Your task to perform on an android device: toggle improve location accuracy Image 0: 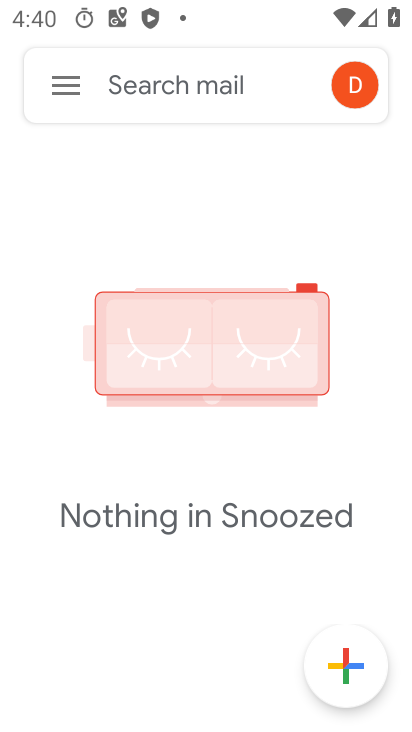
Step 0: press home button
Your task to perform on an android device: toggle improve location accuracy Image 1: 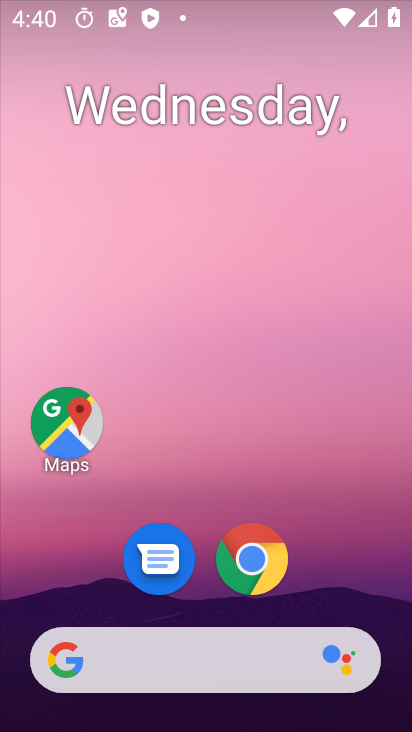
Step 1: drag from (336, 569) to (235, 58)
Your task to perform on an android device: toggle improve location accuracy Image 2: 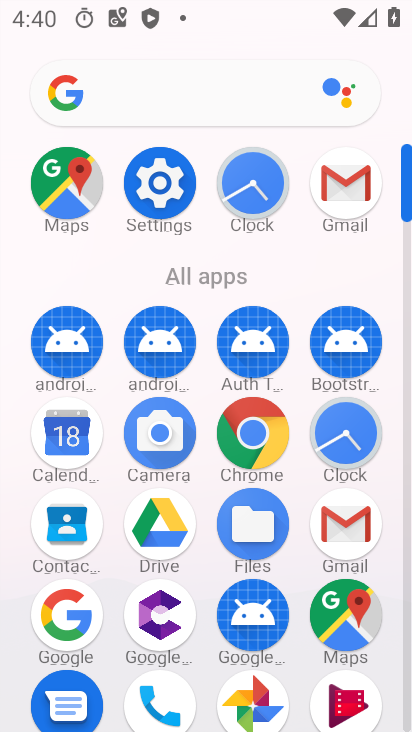
Step 2: click (175, 200)
Your task to perform on an android device: toggle improve location accuracy Image 3: 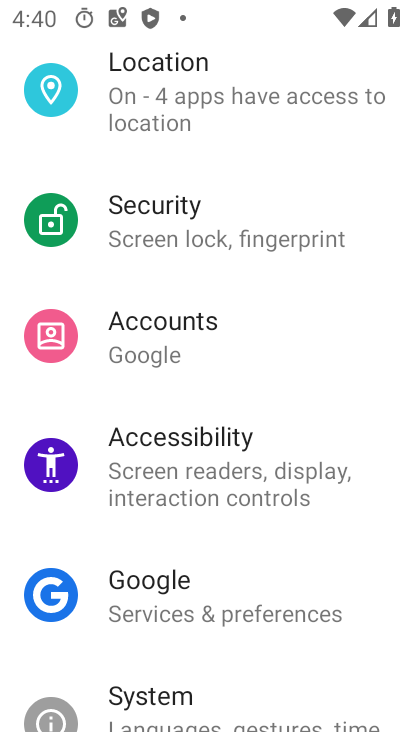
Step 3: click (182, 103)
Your task to perform on an android device: toggle improve location accuracy Image 4: 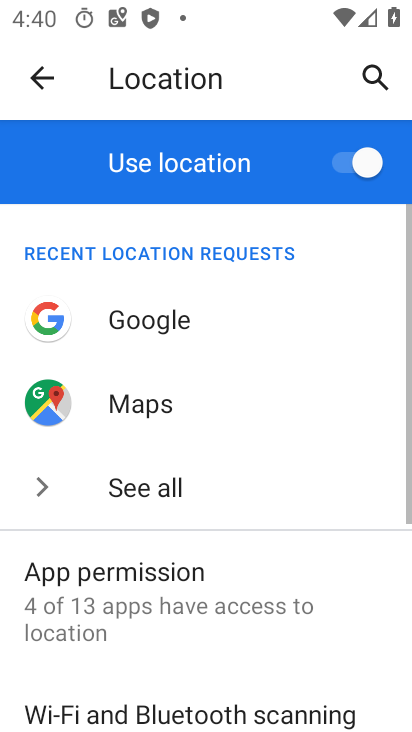
Step 4: drag from (253, 628) to (239, 262)
Your task to perform on an android device: toggle improve location accuracy Image 5: 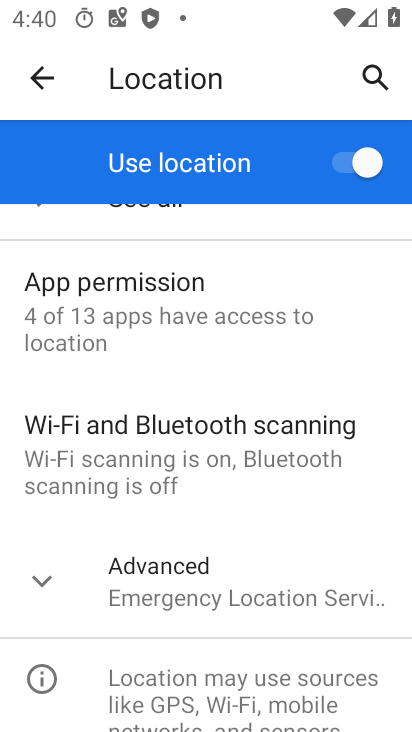
Step 5: click (245, 572)
Your task to perform on an android device: toggle improve location accuracy Image 6: 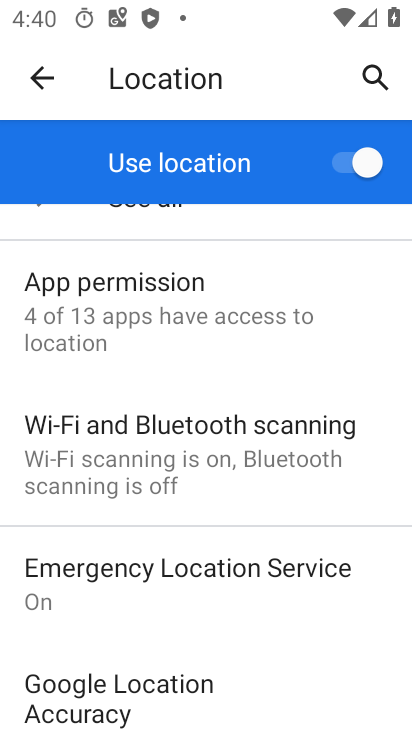
Step 6: drag from (245, 604) to (245, 396)
Your task to perform on an android device: toggle improve location accuracy Image 7: 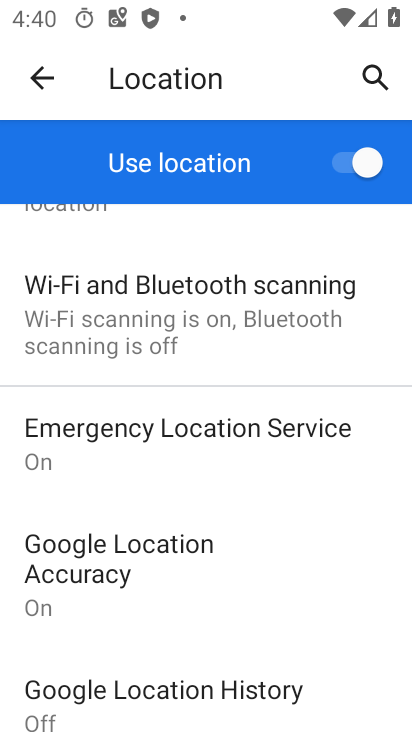
Step 7: click (229, 578)
Your task to perform on an android device: toggle improve location accuracy Image 8: 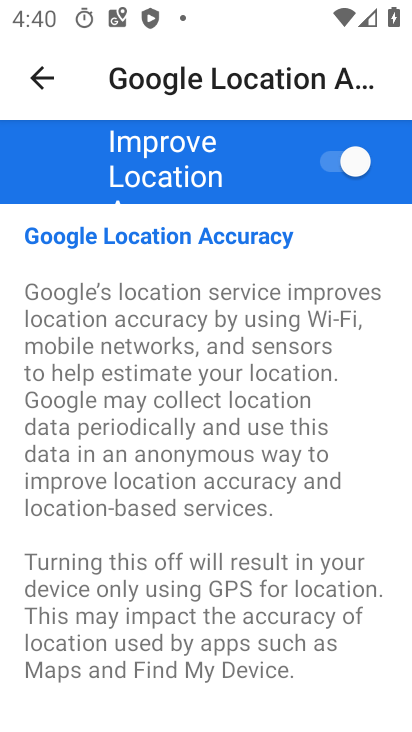
Step 8: click (333, 156)
Your task to perform on an android device: toggle improve location accuracy Image 9: 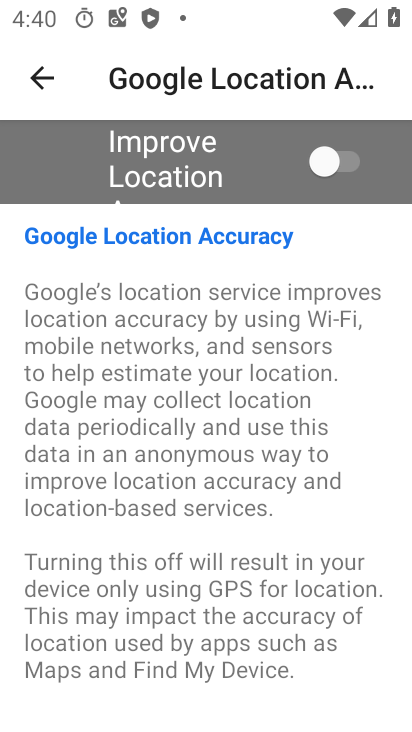
Step 9: task complete